Your task to perform on an android device: add a label to a message in the gmail app Image 0: 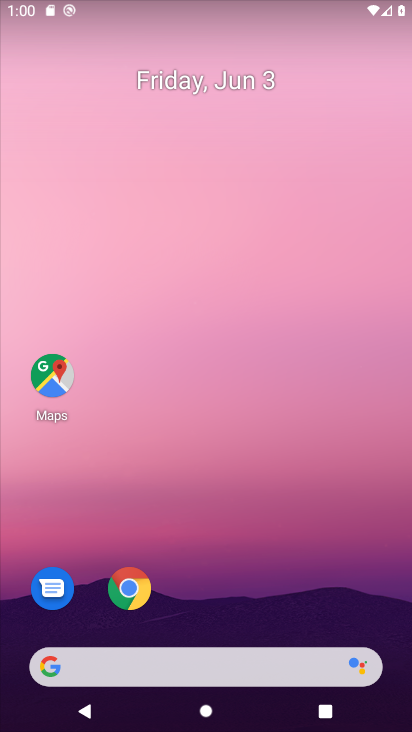
Step 0: drag from (259, 450) to (259, 84)
Your task to perform on an android device: add a label to a message in the gmail app Image 1: 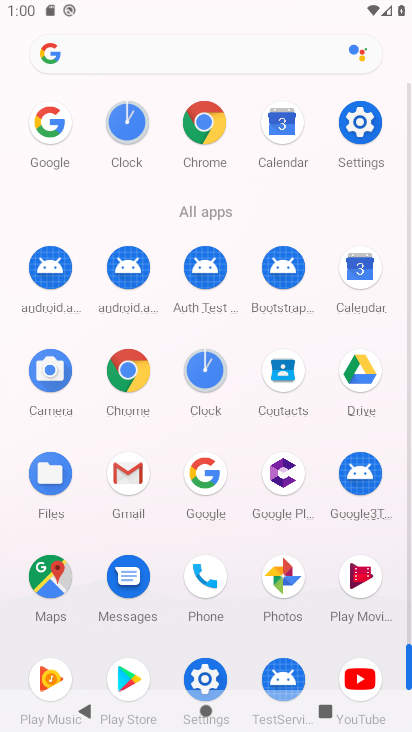
Step 1: click (133, 467)
Your task to perform on an android device: add a label to a message in the gmail app Image 2: 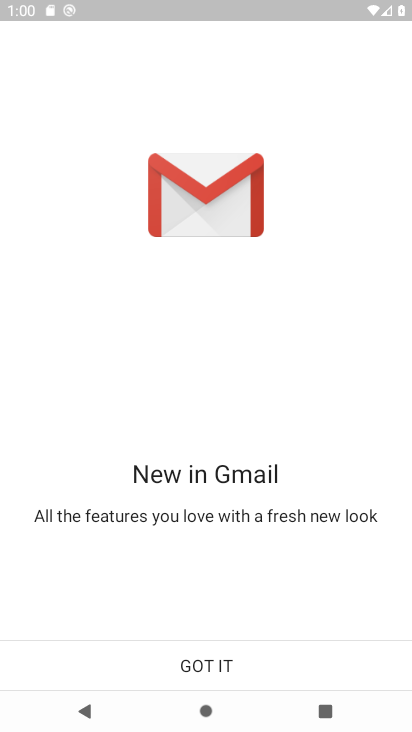
Step 2: click (234, 658)
Your task to perform on an android device: add a label to a message in the gmail app Image 3: 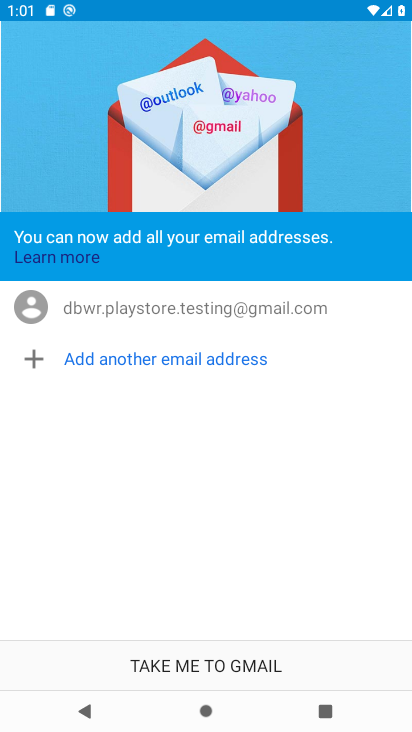
Step 3: click (240, 669)
Your task to perform on an android device: add a label to a message in the gmail app Image 4: 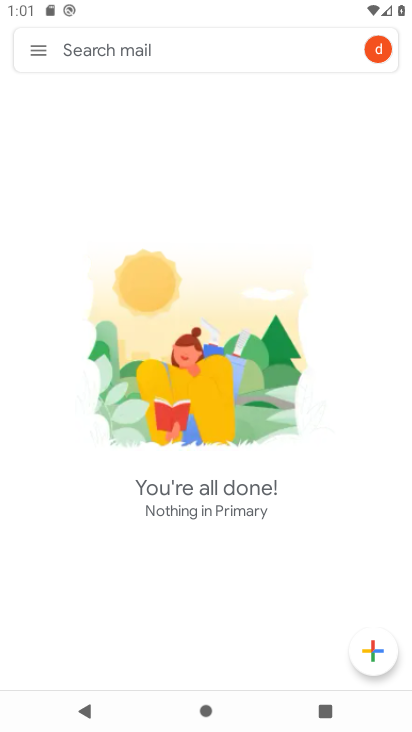
Step 4: click (45, 57)
Your task to perform on an android device: add a label to a message in the gmail app Image 5: 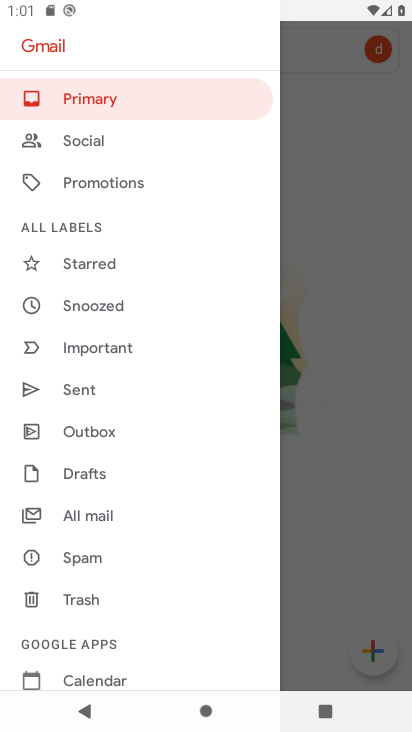
Step 5: click (111, 510)
Your task to perform on an android device: add a label to a message in the gmail app Image 6: 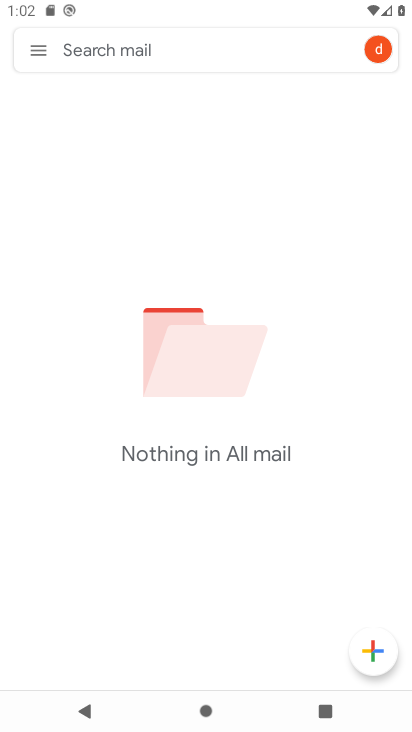
Step 6: task complete